Your task to perform on an android device: toggle priority inbox in the gmail app Image 0: 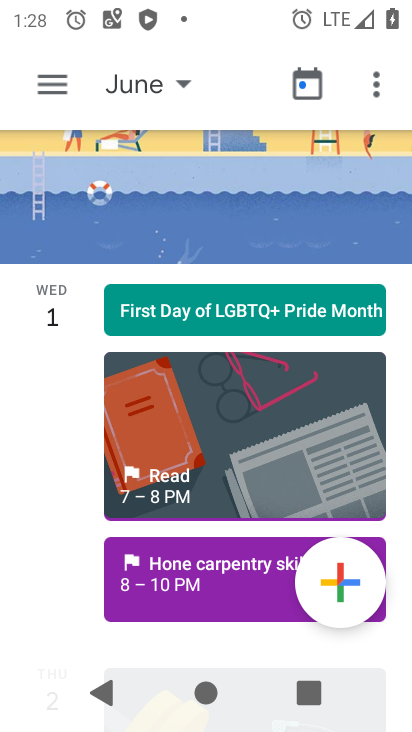
Step 0: press home button
Your task to perform on an android device: toggle priority inbox in the gmail app Image 1: 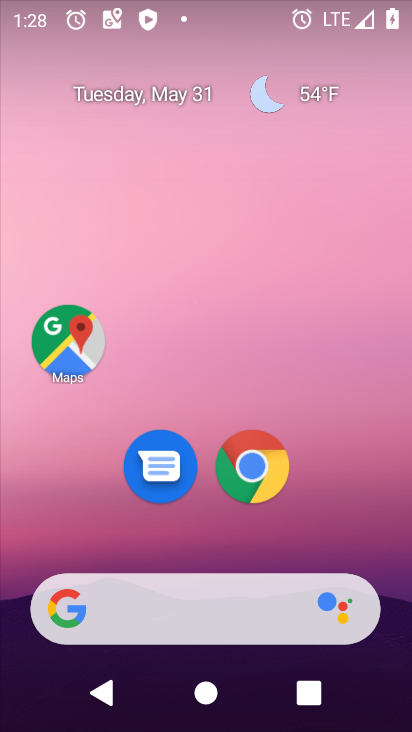
Step 1: drag from (232, 593) to (187, 54)
Your task to perform on an android device: toggle priority inbox in the gmail app Image 2: 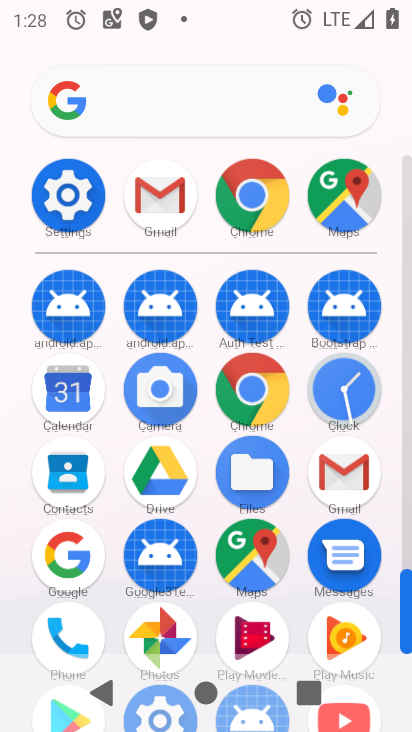
Step 2: click (357, 479)
Your task to perform on an android device: toggle priority inbox in the gmail app Image 3: 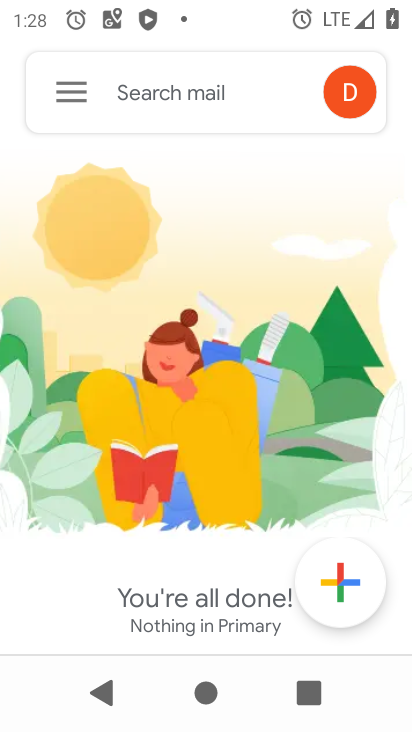
Step 3: click (77, 100)
Your task to perform on an android device: toggle priority inbox in the gmail app Image 4: 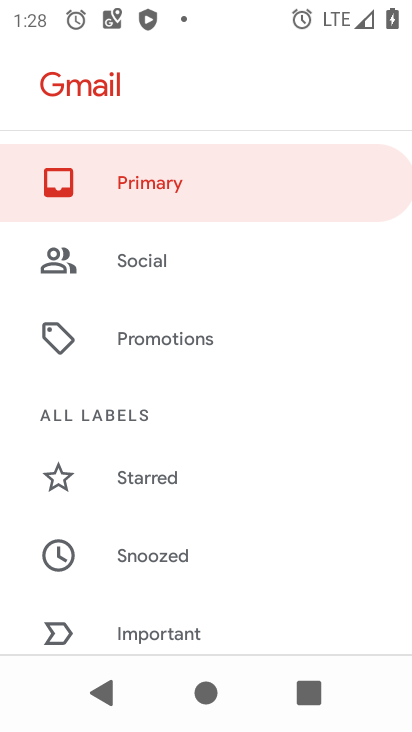
Step 4: drag from (230, 492) to (129, 65)
Your task to perform on an android device: toggle priority inbox in the gmail app Image 5: 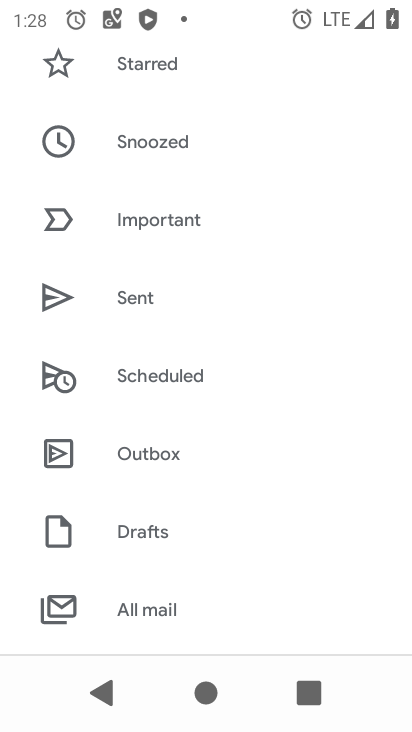
Step 5: drag from (157, 469) to (142, 10)
Your task to perform on an android device: toggle priority inbox in the gmail app Image 6: 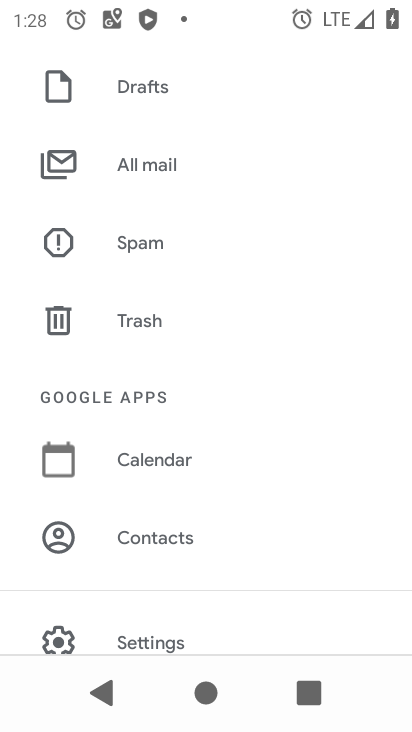
Step 6: click (167, 632)
Your task to perform on an android device: toggle priority inbox in the gmail app Image 7: 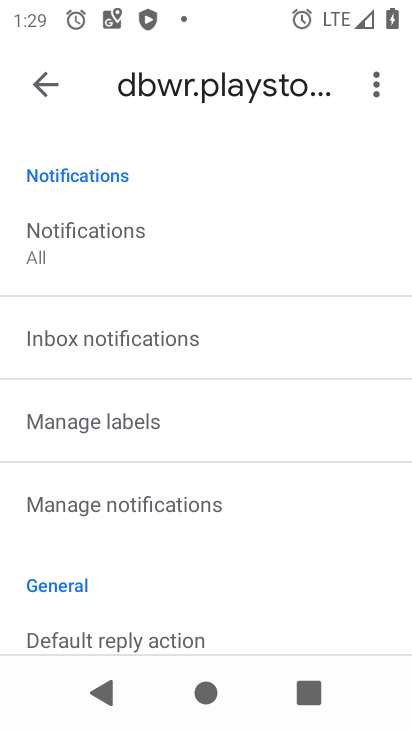
Step 7: drag from (147, 266) to (207, 604)
Your task to perform on an android device: toggle priority inbox in the gmail app Image 8: 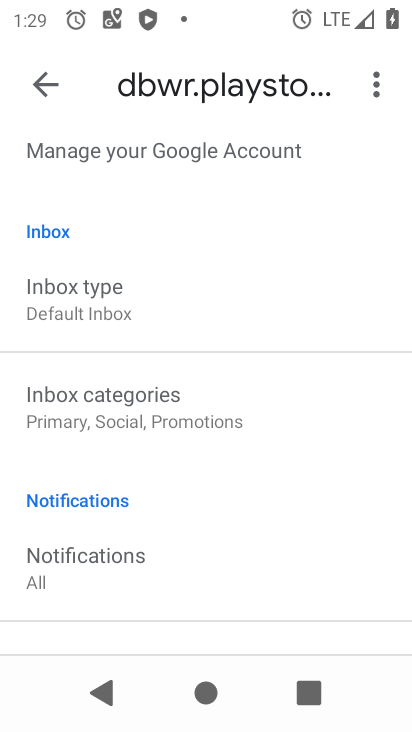
Step 8: click (130, 311)
Your task to perform on an android device: toggle priority inbox in the gmail app Image 9: 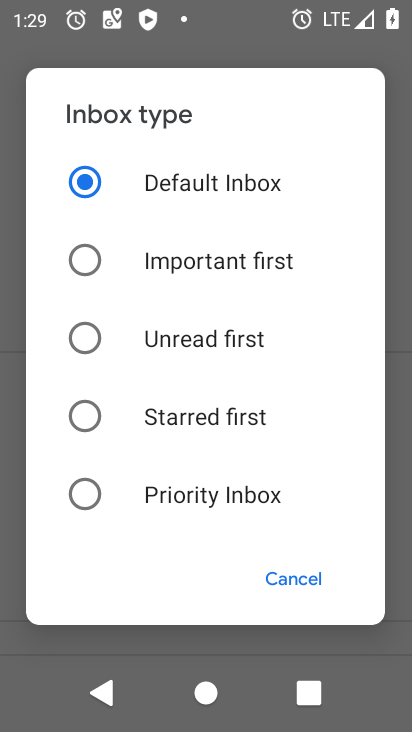
Step 9: click (164, 498)
Your task to perform on an android device: toggle priority inbox in the gmail app Image 10: 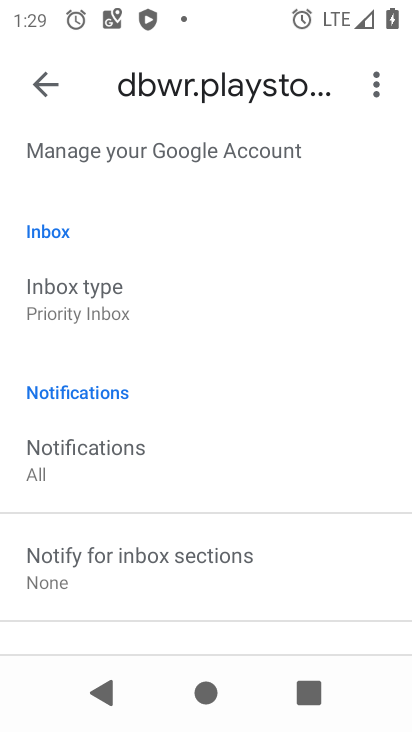
Step 10: task complete